Your task to perform on an android device: Open Wikipedia Image 0: 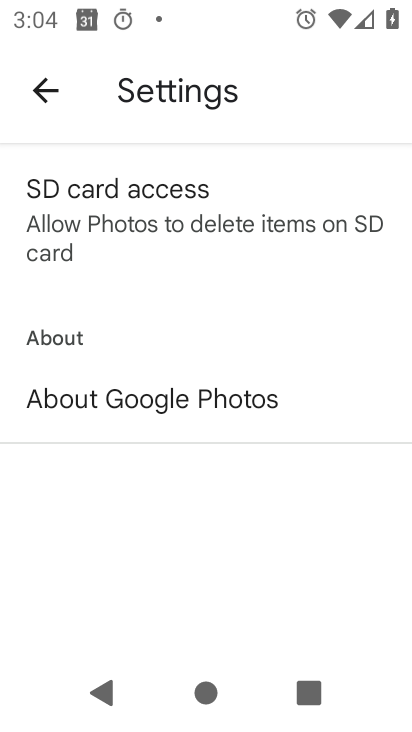
Step 0: press home button
Your task to perform on an android device: Open Wikipedia Image 1: 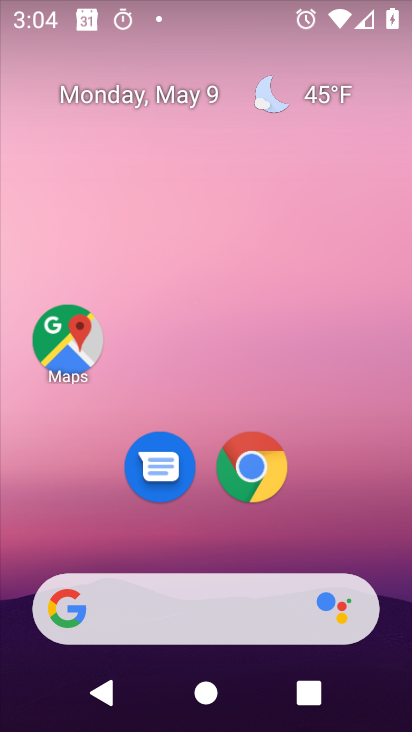
Step 1: drag from (349, 514) to (344, 66)
Your task to perform on an android device: Open Wikipedia Image 2: 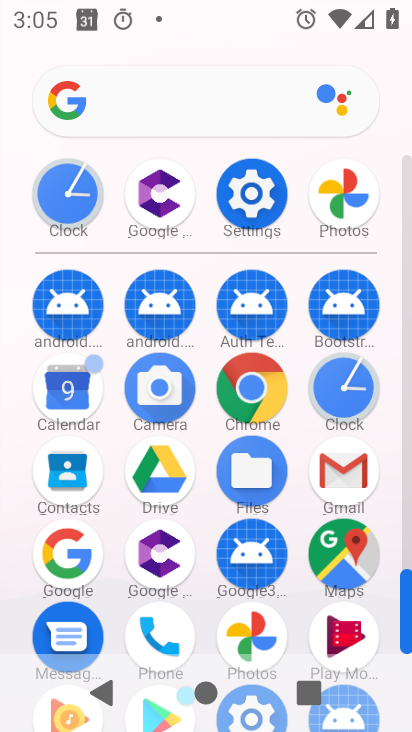
Step 2: click (257, 377)
Your task to perform on an android device: Open Wikipedia Image 3: 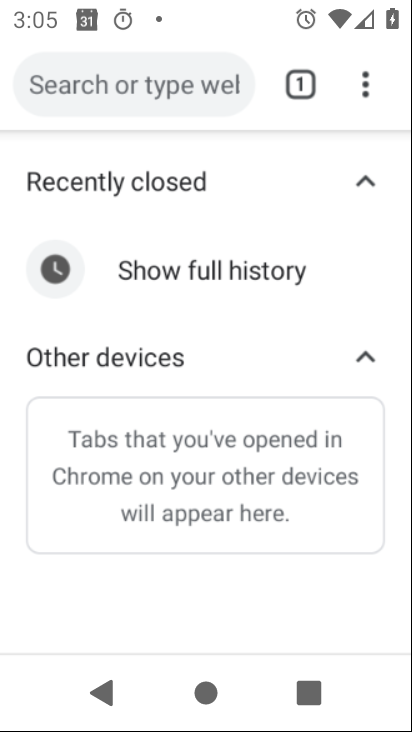
Step 3: click (208, 99)
Your task to perform on an android device: Open Wikipedia Image 4: 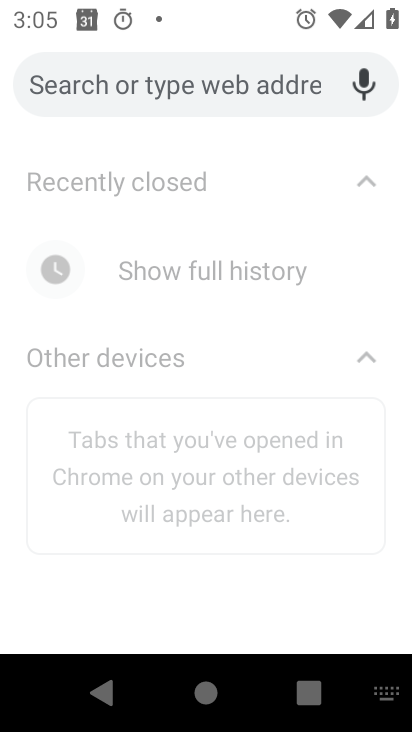
Step 4: type "wikipedia"
Your task to perform on an android device: Open Wikipedia Image 5: 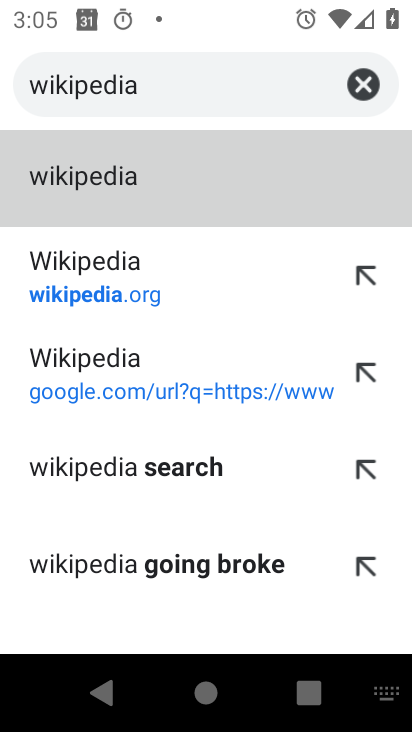
Step 5: click (104, 293)
Your task to perform on an android device: Open Wikipedia Image 6: 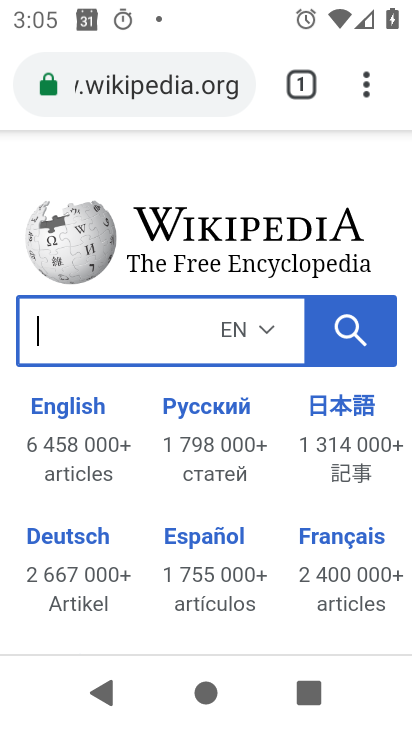
Step 6: task complete